Your task to perform on an android device: Clear all items from cart on walmart.com. Image 0: 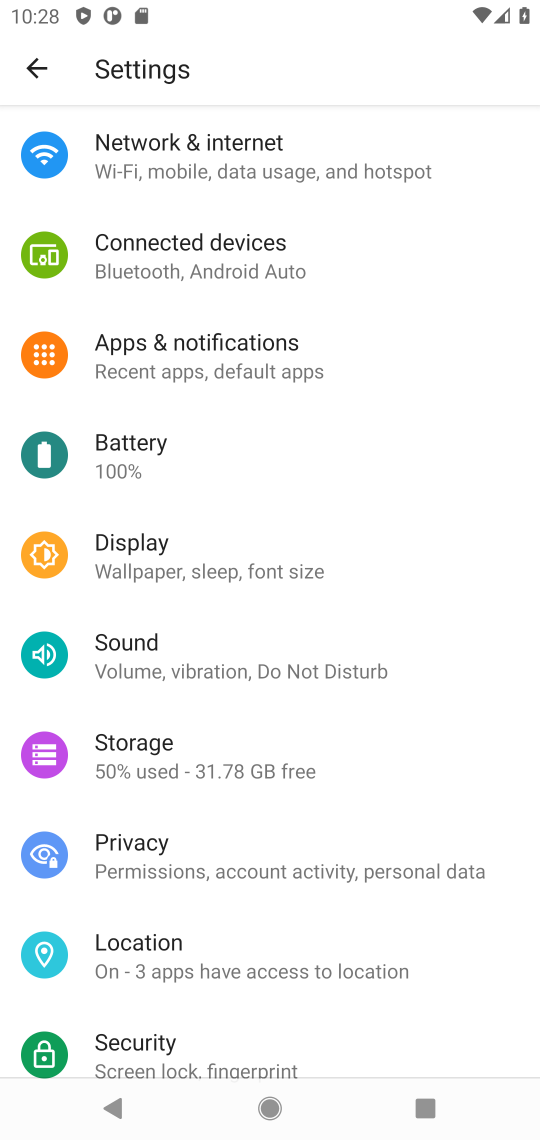
Step 0: press home button
Your task to perform on an android device: Clear all items from cart on walmart.com. Image 1: 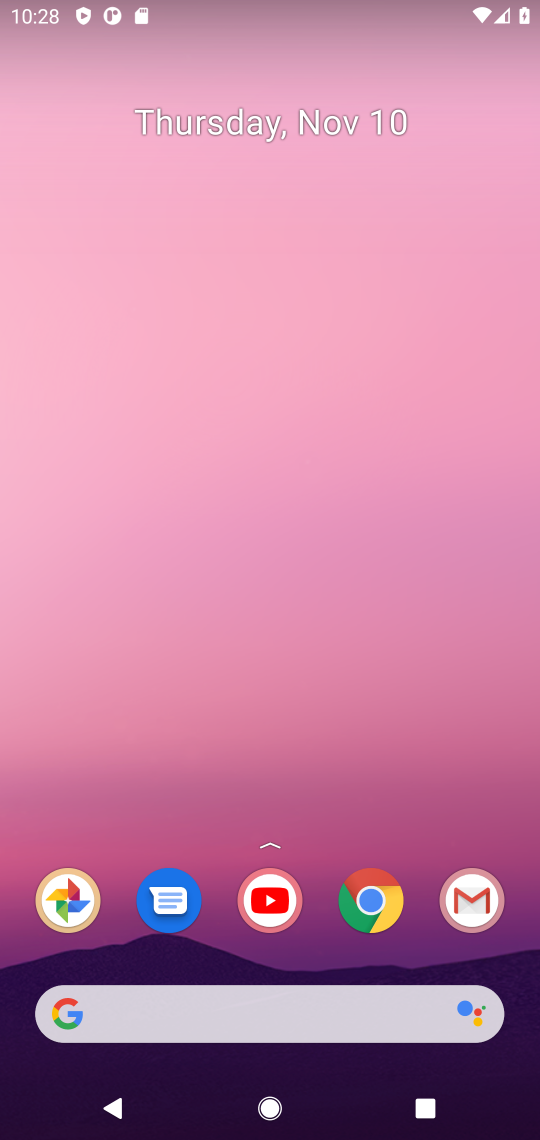
Step 1: click (374, 897)
Your task to perform on an android device: Clear all items from cart on walmart.com. Image 2: 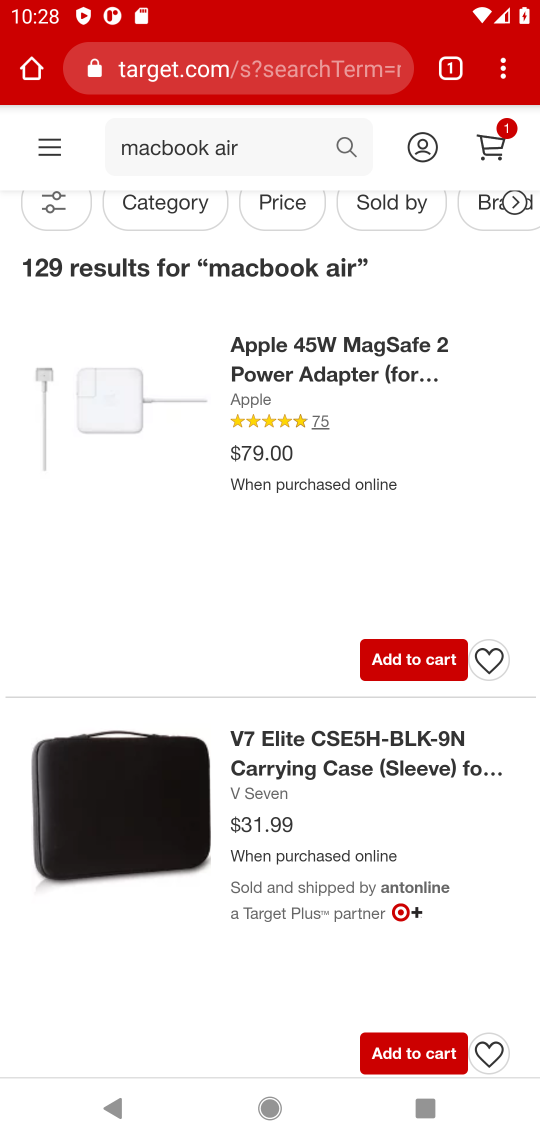
Step 2: click (251, 53)
Your task to perform on an android device: Clear all items from cart on walmart.com. Image 3: 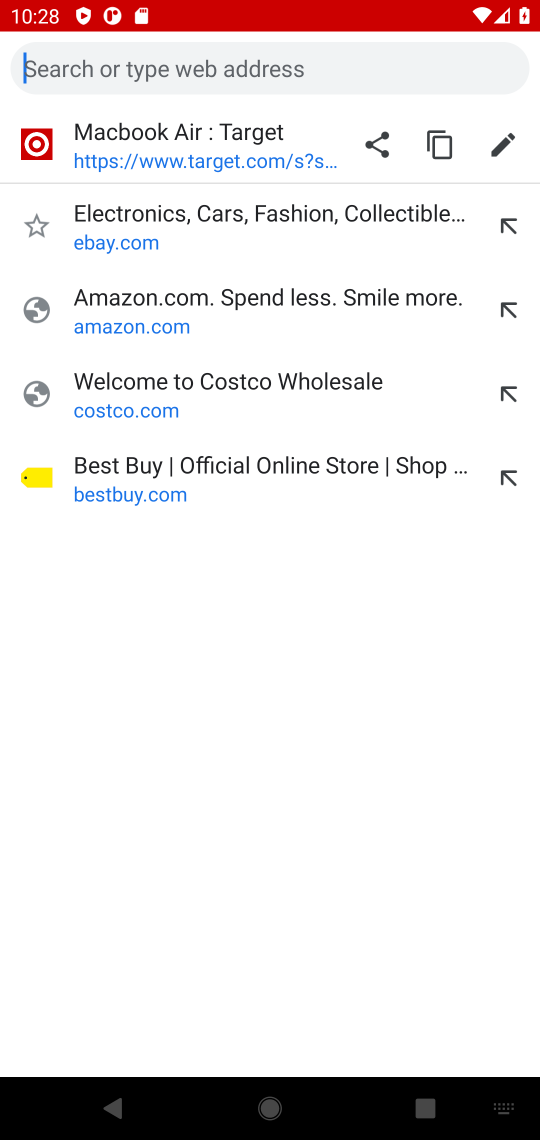
Step 3: type " walmart.com"
Your task to perform on an android device: Clear all items from cart on walmart.com. Image 4: 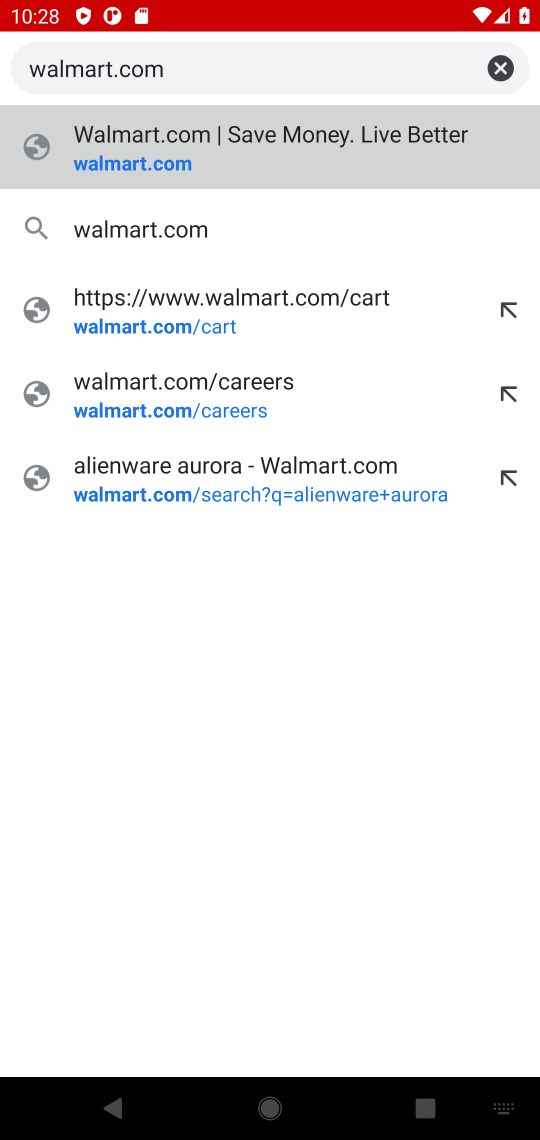
Step 4: press enter
Your task to perform on an android device: Clear all items from cart on walmart.com. Image 5: 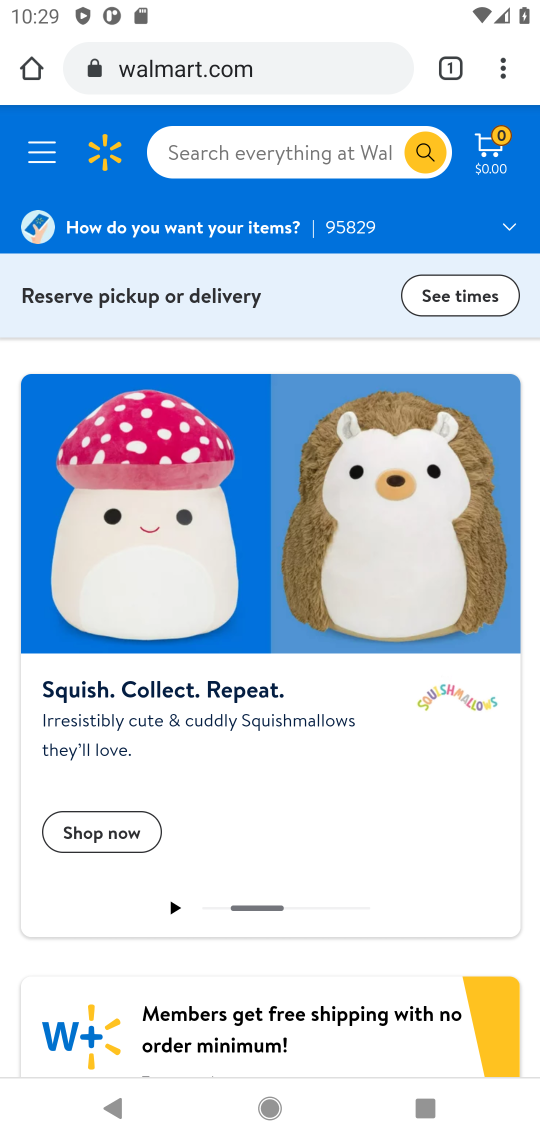
Step 5: click (492, 149)
Your task to perform on an android device: Clear all items from cart on walmart.com. Image 6: 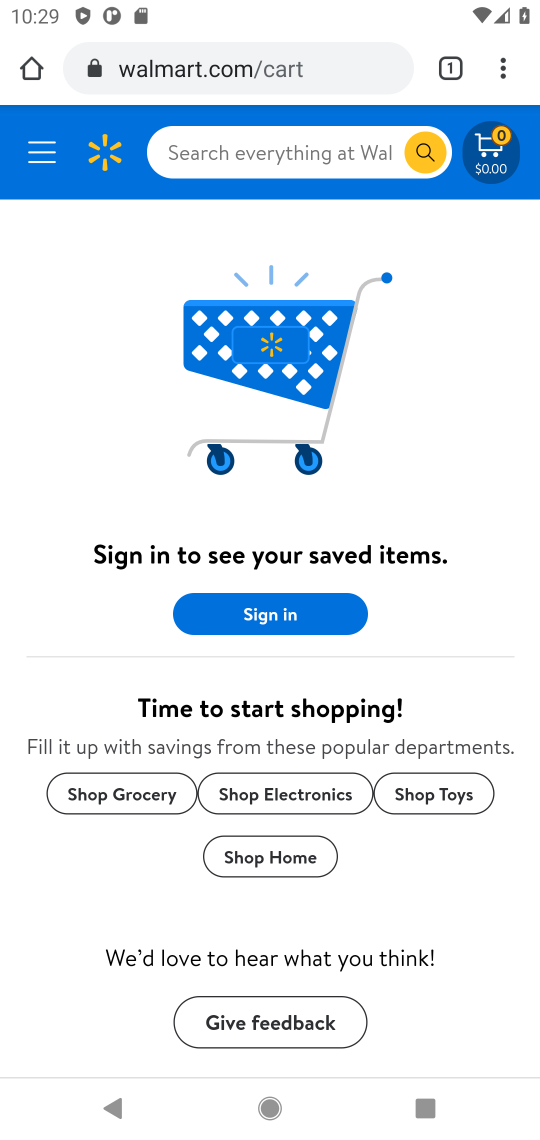
Step 6: task complete